Your task to perform on an android device: uninstall "Google Translate" Image 0: 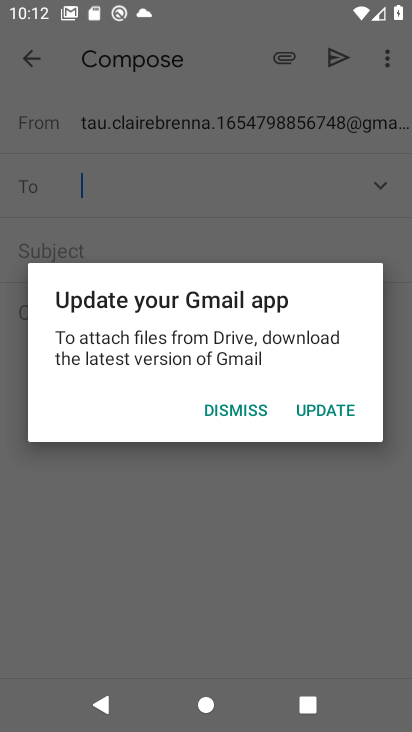
Step 0: press back button
Your task to perform on an android device: uninstall "Google Translate" Image 1: 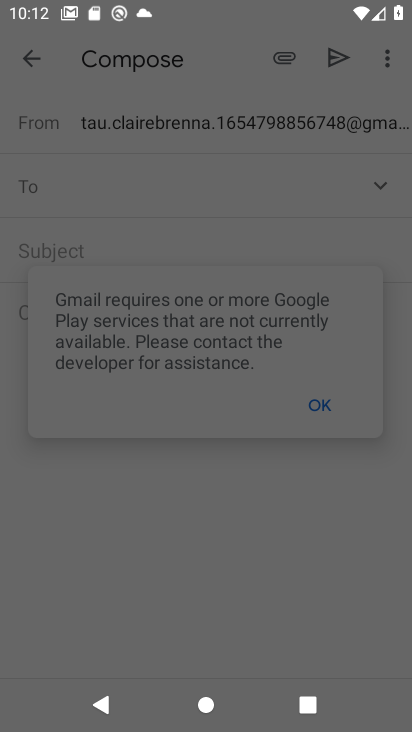
Step 1: press home button
Your task to perform on an android device: uninstall "Google Translate" Image 2: 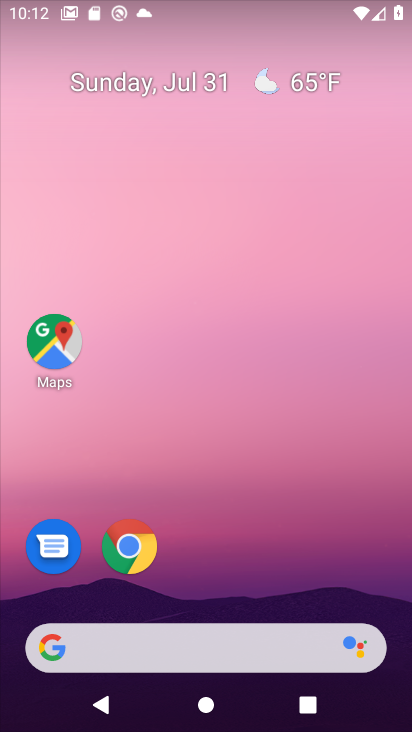
Step 2: drag from (215, 585) to (256, 14)
Your task to perform on an android device: uninstall "Google Translate" Image 3: 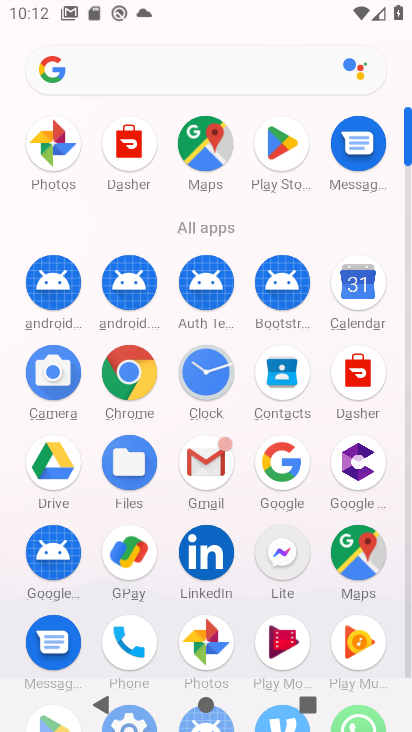
Step 3: click (280, 147)
Your task to perform on an android device: uninstall "Google Translate" Image 4: 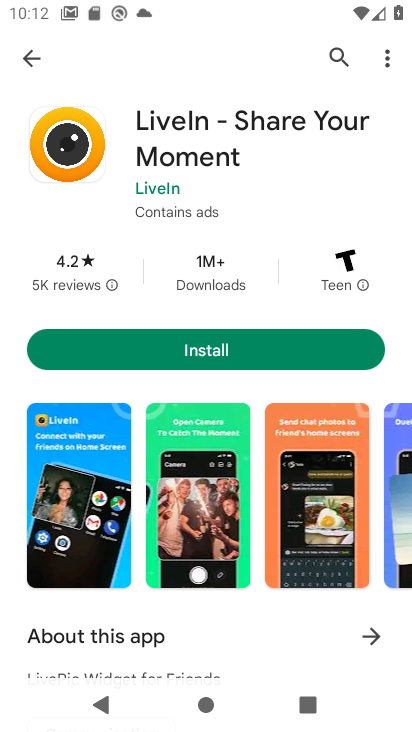
Step 4: click (340, 59)
Your task to perform on an android device: uninstall "Google Translate" Image 5: 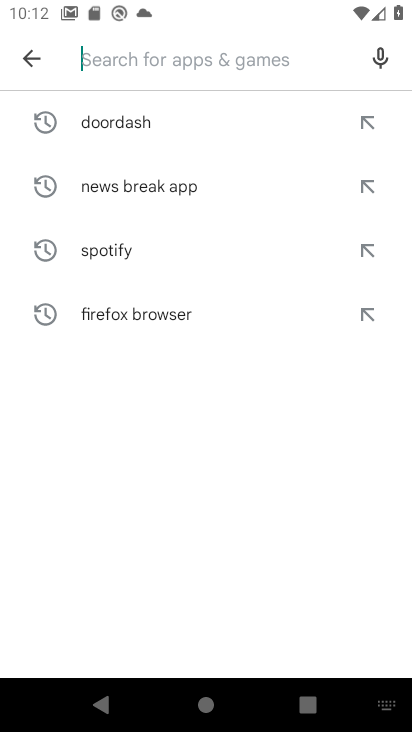
Step 5: click (214, 63)
Your task to perform on an android device: uninstall "Google Translate" Image 6: 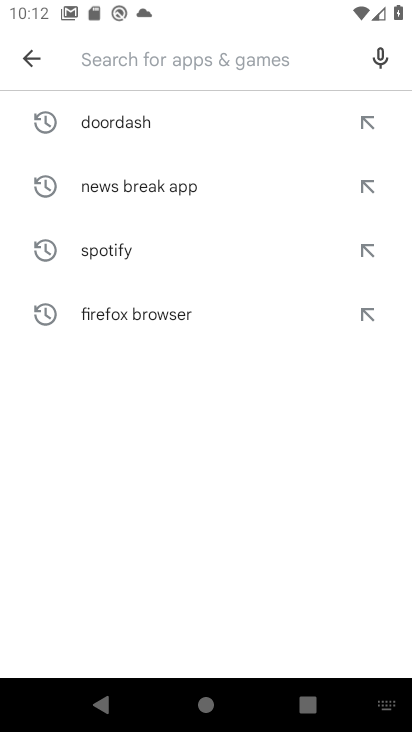
Step 6: type "google translate"
Your task to perform on an android device: uninstall "Google Translate" Image 7: 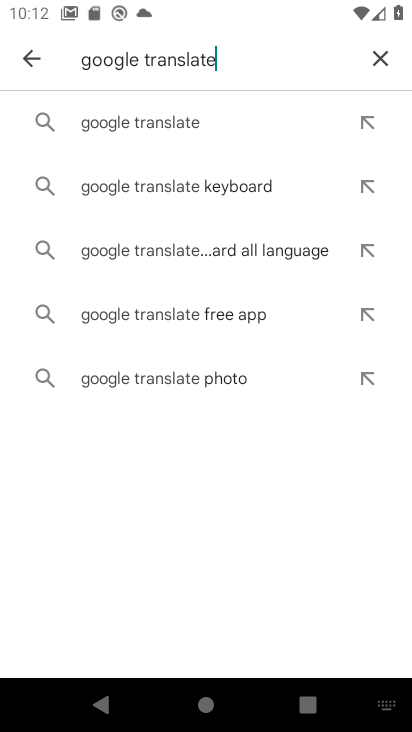
Step 7: click (204, 120)
Your task to perform on an android device: uninstall "Google Translate" Image 8: 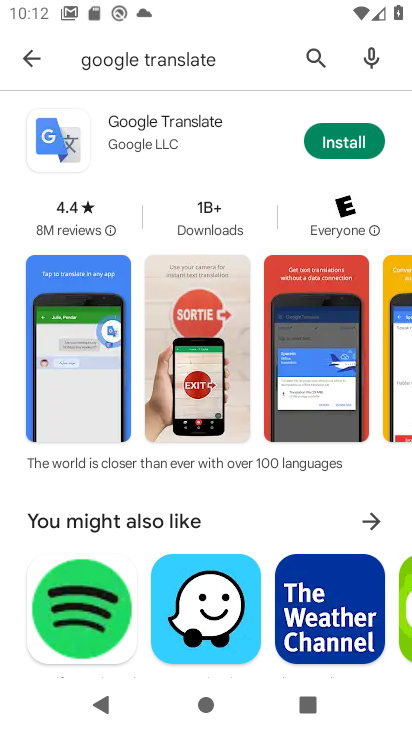
Step 8: task complete